Your task to perform on an android device: turn notification dots on Image 0: 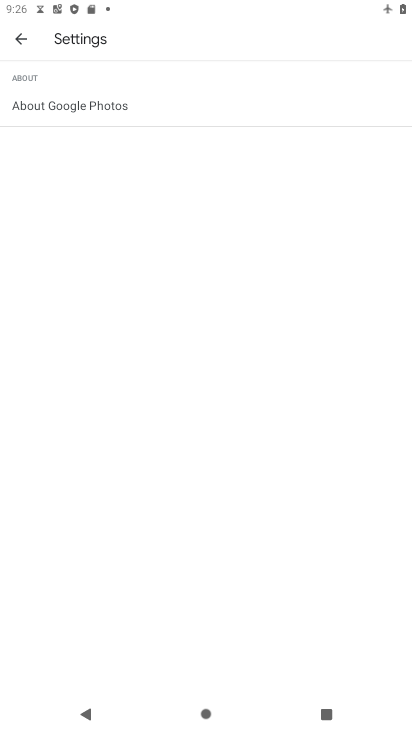
Step 0: press home button
Your task to perform on an android device: turn notification dots on Image 1: 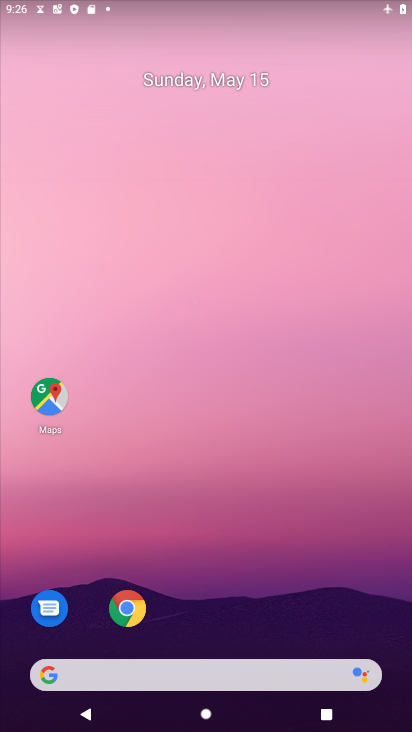
Step 1: drag from (311, 577) to (283, 2)
Your task to perform on an android device: turn notification dots on Image 2: 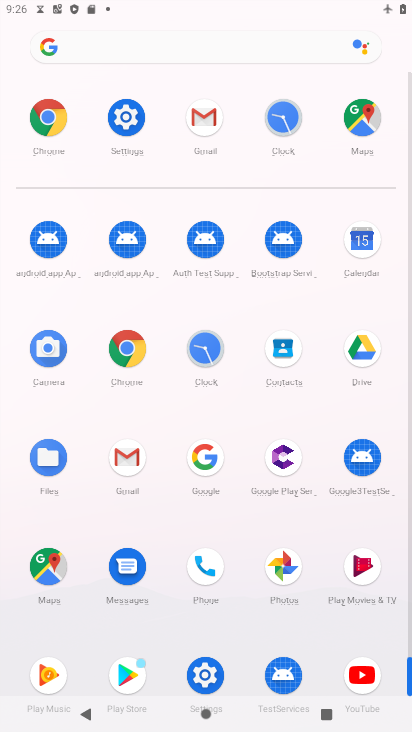
Step 2: click (124, 161)
Your task to perform on an android device: turn notification dots on Image 3: 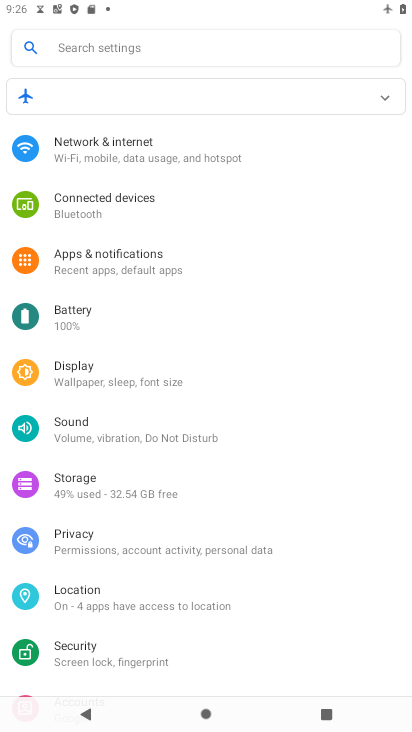
Step 3: click (130, 260)
Your task to perform on an android device: turn notification dots on Image 4: 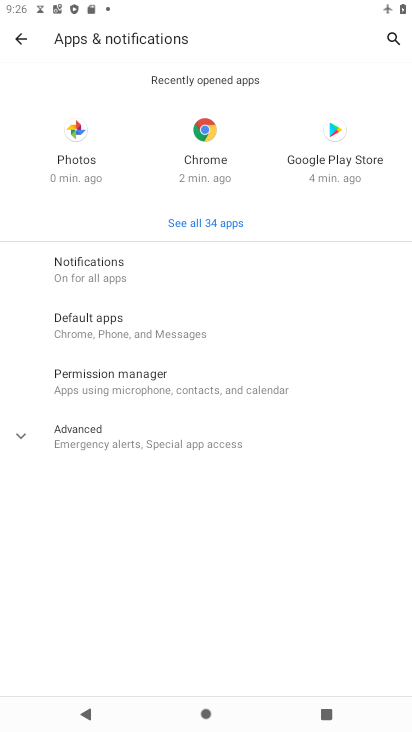
Step 4: click (97, 270)
Your task to perform on an android device: turn notification dots on Image 5: 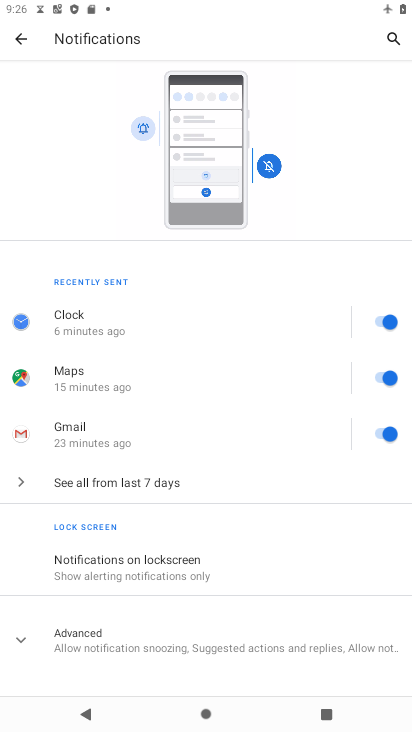
Step 5: drag from (150, 620) to (138, 252)
Your task to perform on an android device: turn notification dots on Image 6: 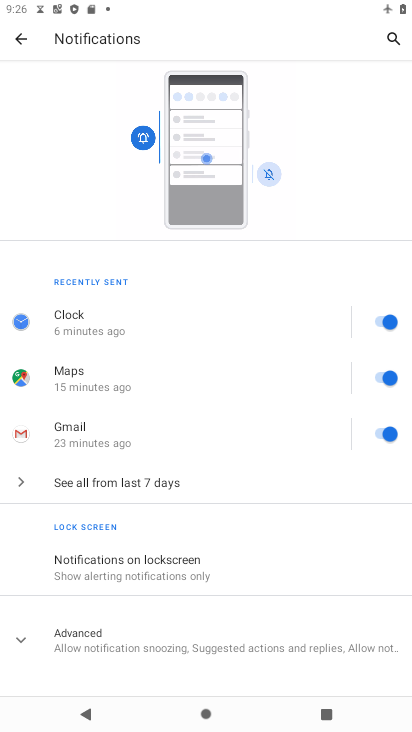
Step 6: drag from (205, 629) to (159, 225)
Your task to perform on an android device: turn notification dots on Image 7: 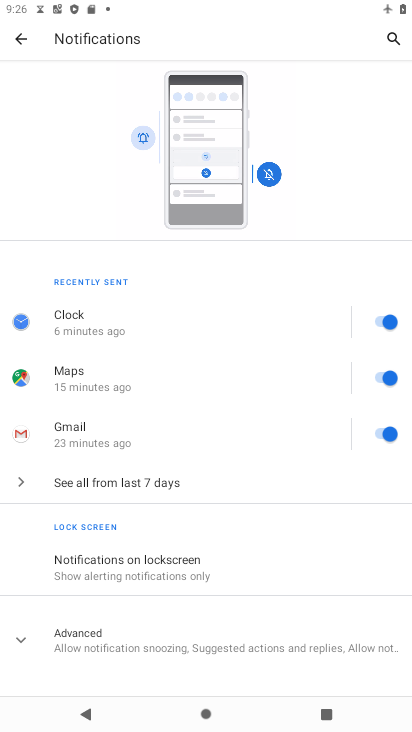
Step 7: click (106, 629)
Your task to perform on an android device: turn notification dots on Image 8: 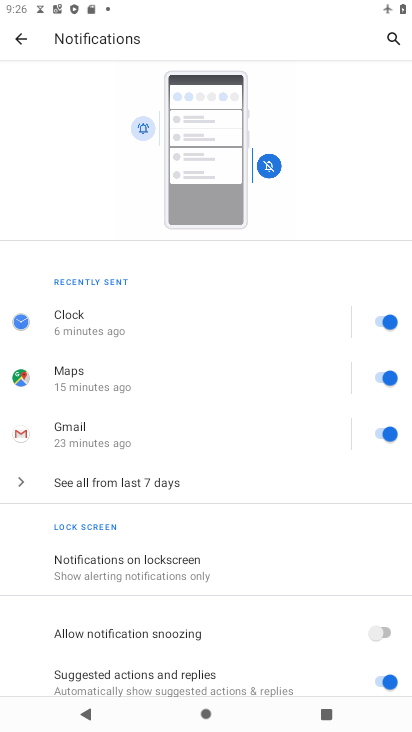
Step 8: task complete